Your task to perform on an android device: turn on location history Image 0: 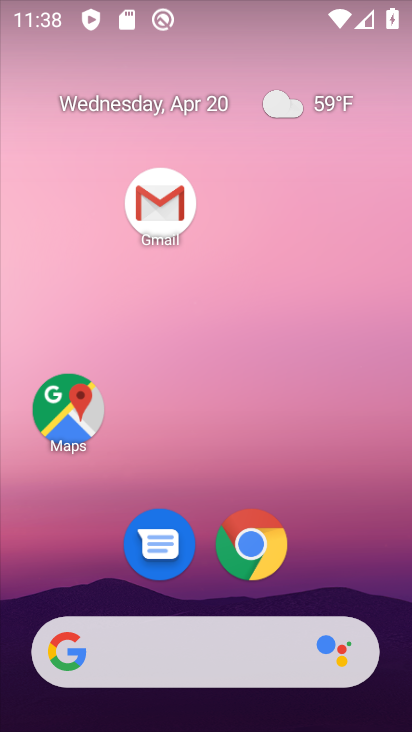
Step 0: drag from (288, 584) to (352, 79)
Your task to perform on an android device: turn on location history Image 1: 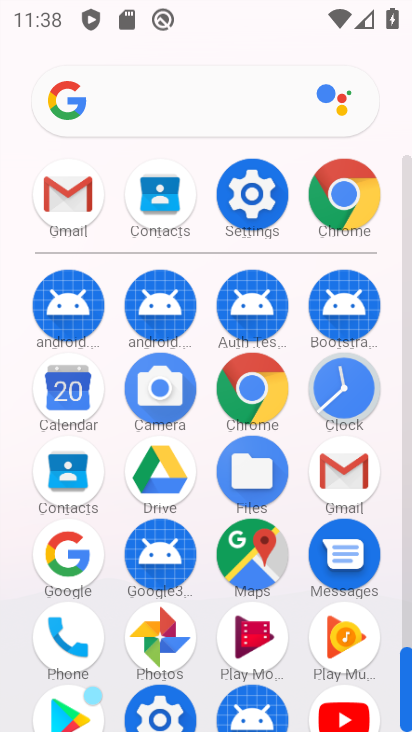
Step 1: click (263, 183)
Your task to perform on an android device: turn on location history Image 2: 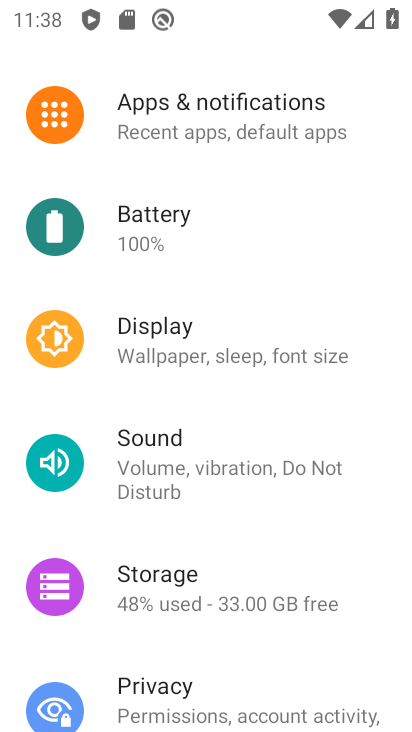
Step 2: drag from (138, 610) to (242, 170)
Your task to perform on an android device: turn on location history Image 3: 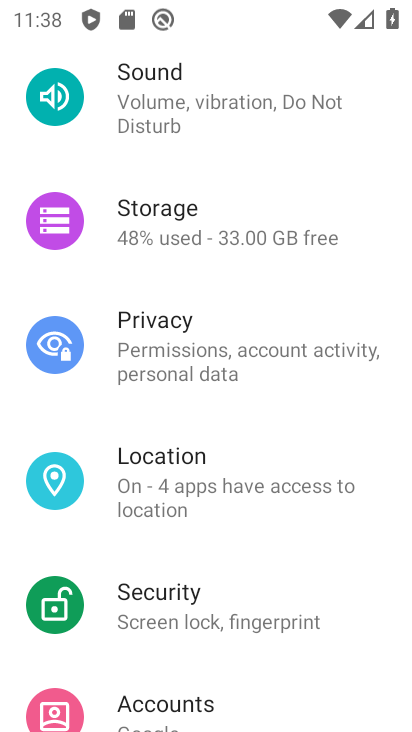
Step 3: click (165, 470)
Your task to perform on an android device: turn on location history Image 4: 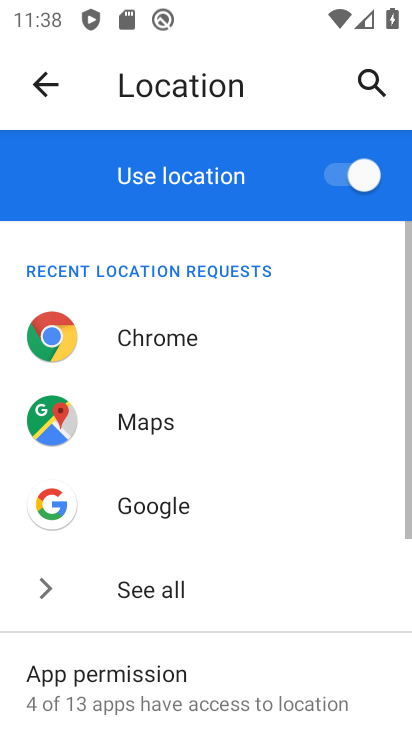
Step 4: drag from (234, 521) to (307, 103)
Your task to perform on an android device: turn on location history Image 5: 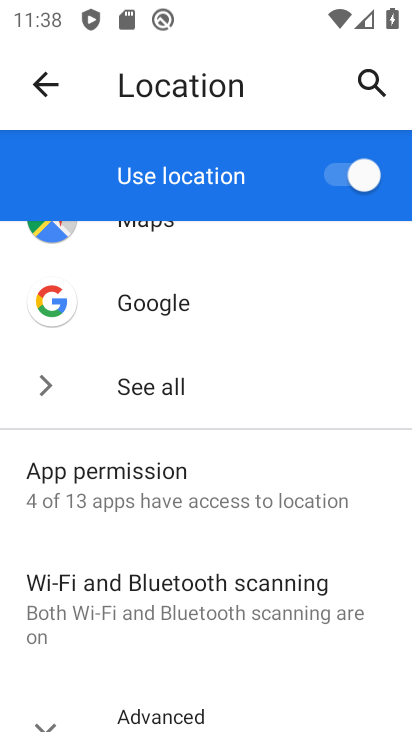
Step 5: drag from (279, 586) to (318, 238)
Your task to perform on an android device: turn on location history Image 6: 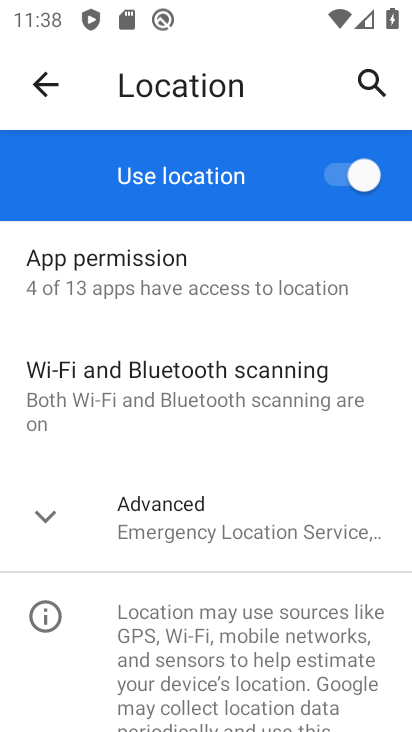
Step 6: click (197, 513)
Your task to perform on an android device: turn on location history Image 7: 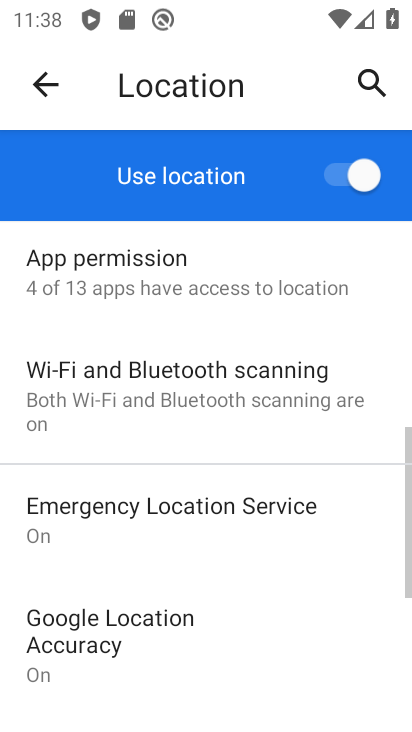
Step 7: drag from (201, 543) to (272, 293)
Your task to perform on an android device: turn on location history Image 8: 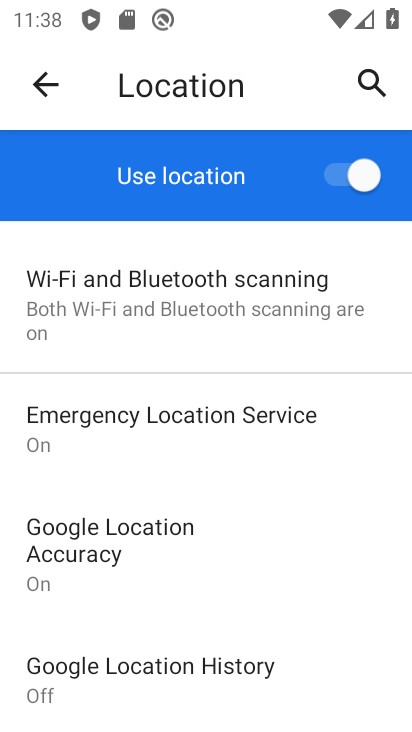
Step 8: drag from (215, 588) to (262, 290)
Your task to perform on an android device: turn on location history Image 9: 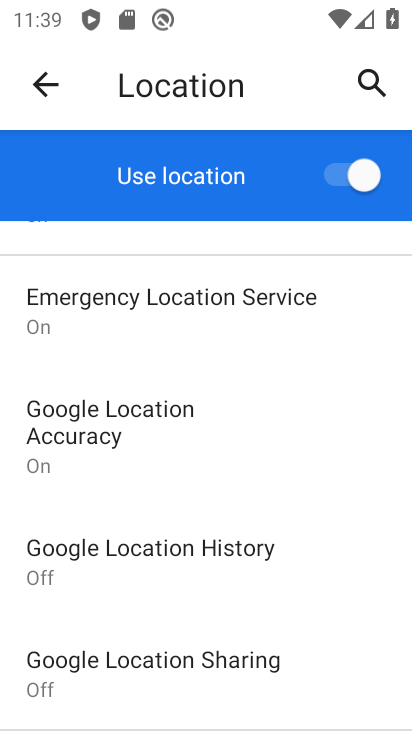
Step 9: click (144, 545)
Your task to perform on an android device: turn on location history Image 10: 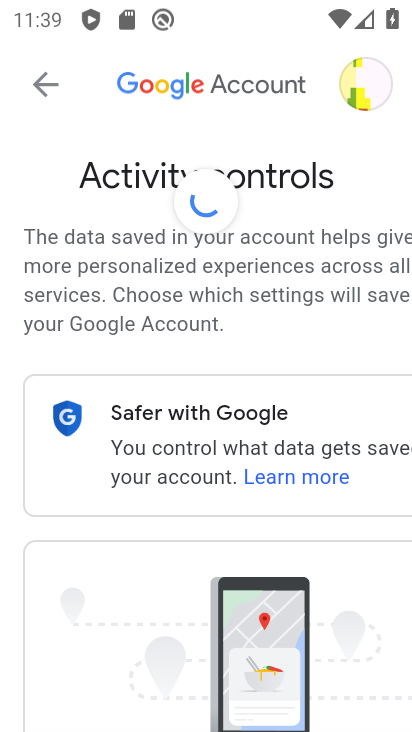
Step 10: drag from (280, 547) to (333, 63)
Your task to perform on an android device: turn on location history Image 11: 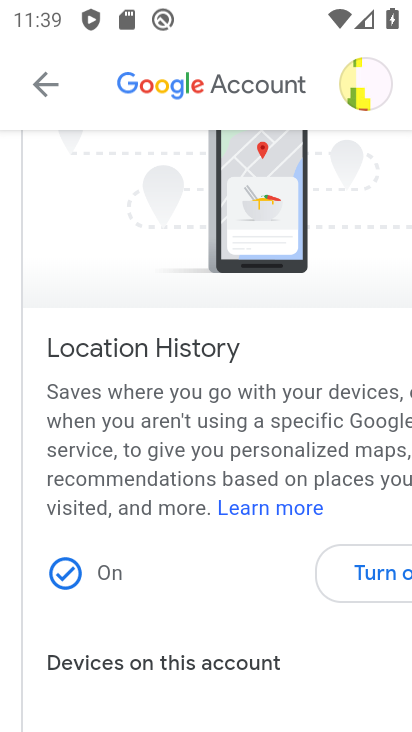
Step 11: click (354, 578)
Your task to perform on an android device: turn on location history Image 12: 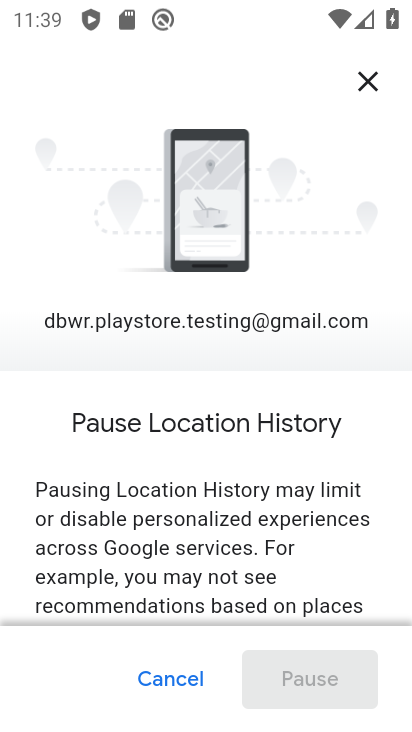
Step 12: drag from (348, 550) to (364, 67)
Your task to perform on an android device: turn on location history Image 13: 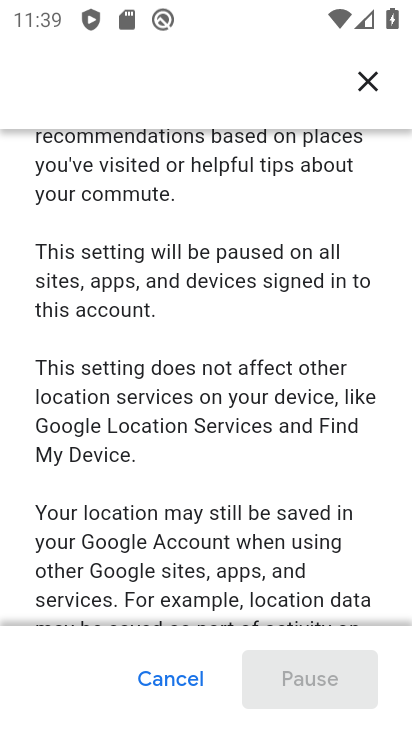
Step 13: drag from (270, 526) to (312, 77)
Your task to perform on an android device: turn on location history Image 14: 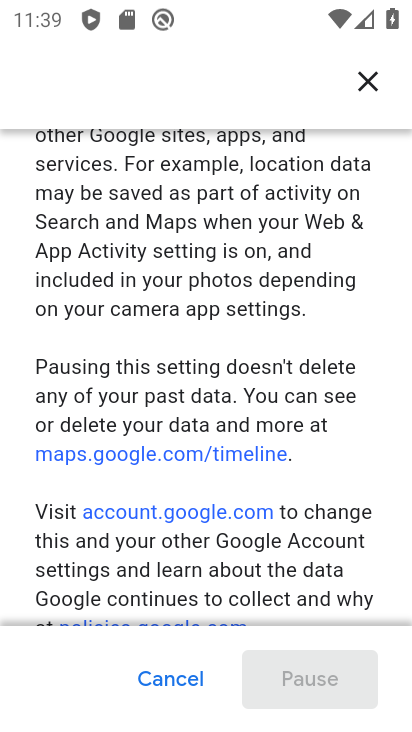
Step 14: drag from (271, 570) to (289, 130)
Your task to perform on an android device: turn on location history Image 15: 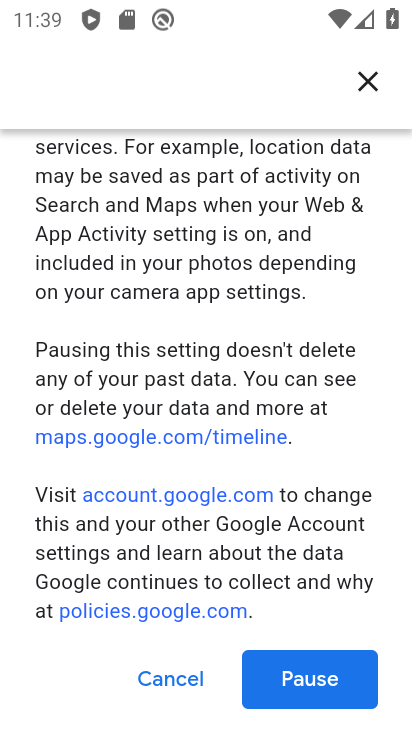
Step 15: click (290, 662)
Your task to perform on an android device: turn on location history Image 16: 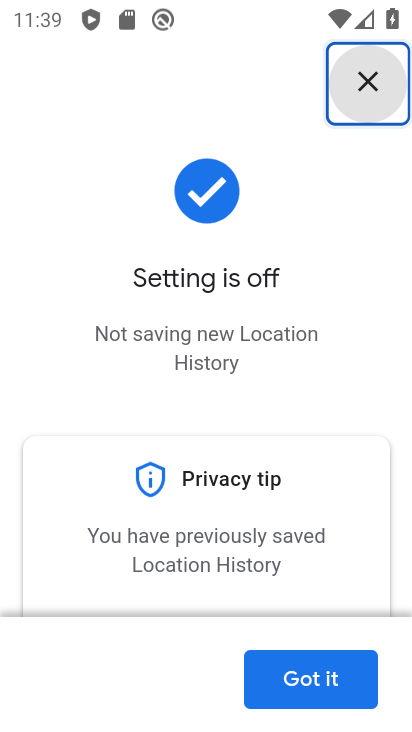
Step 16: click (294, 664)
Your task to perform on an android device: turn on location history Image 17: 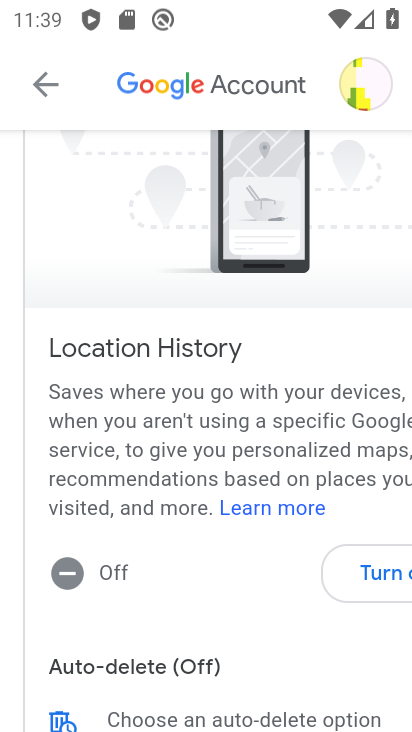
Step 17: task complete